Your task to perform on an android device: Empty the shopping cart on walmart. Image 0: 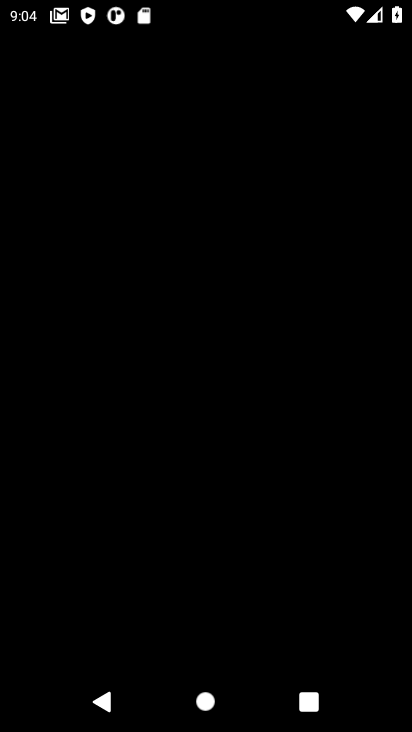
Step 0: press home button
Your task to perform on an android device: Empty the shopping cart on walmart. Image 1: 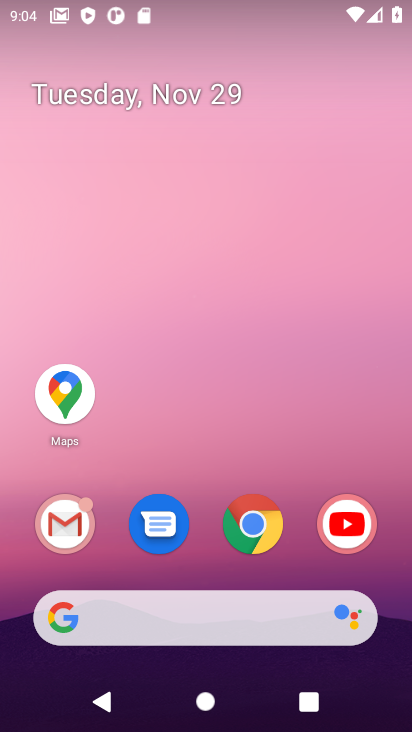
Step 1: click (251, 528)
Your task to perform on an android device: Empty the shopping cart on walmart. Image 2: 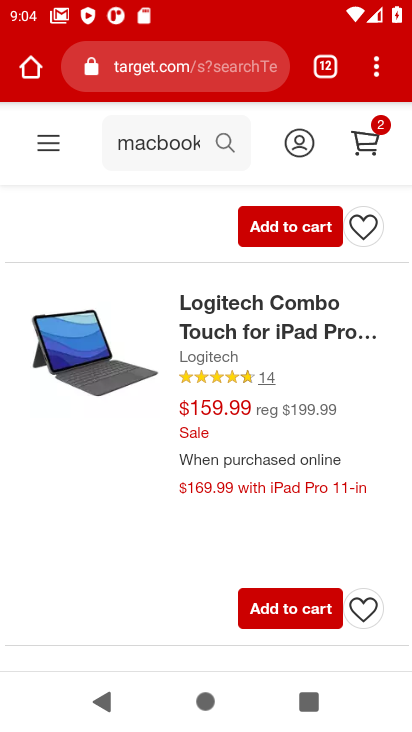
Step 2: click (155, 71)
Your task to perform on an android device: Empty the shopping cart on walmart. Image 3: 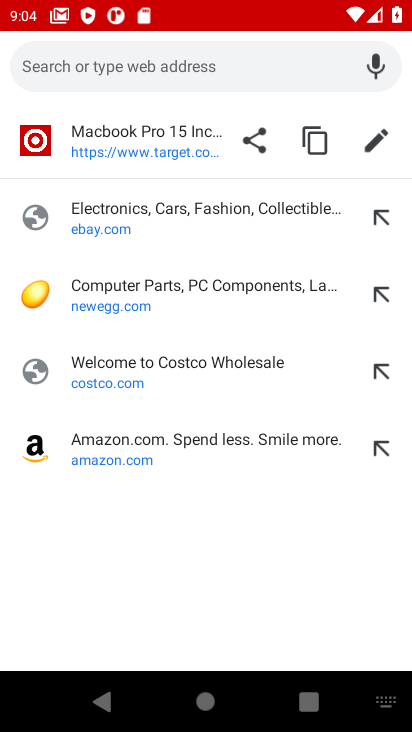
Step 3: type "walmart.com"
Your task to perform on an android device: Empty the shopping cart on walmart. Image 4: 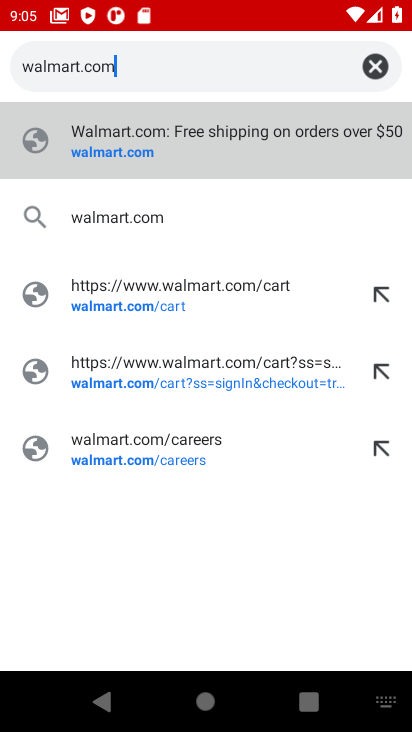
Step 4: click (81, 154)
Your task to perform on an android device: Empty the shopping cart on walmart. Image 5: 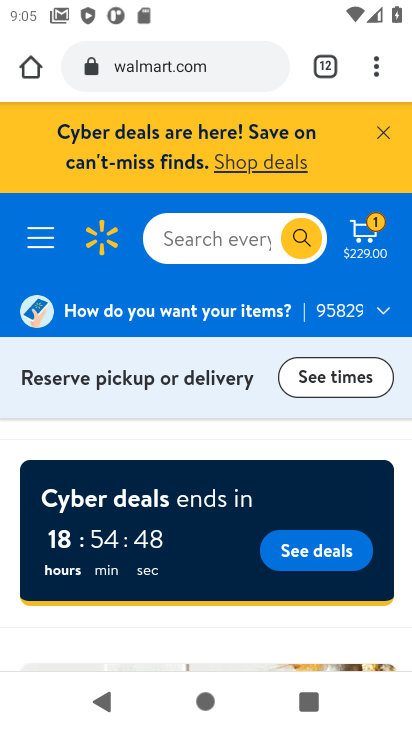
Step 5: click (377, 241)
Your task to perform on an android device: Empty the shopping cart on walmart. Image 6: 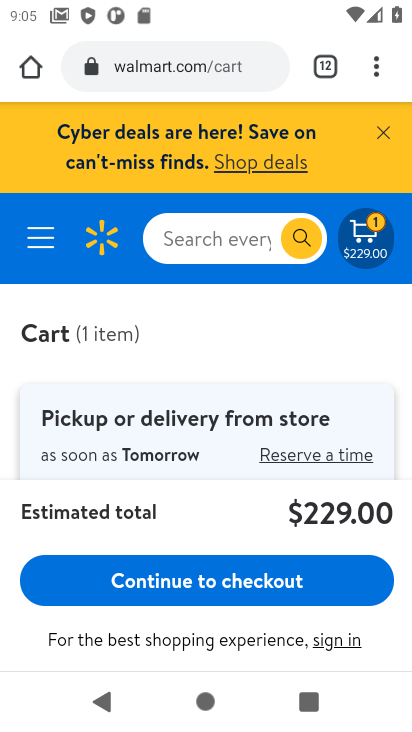
Step 6: drag from (311, 369) to (271, 183)
Your task to perform on an android device: Empty the shopping cart on walmart. Image 7: 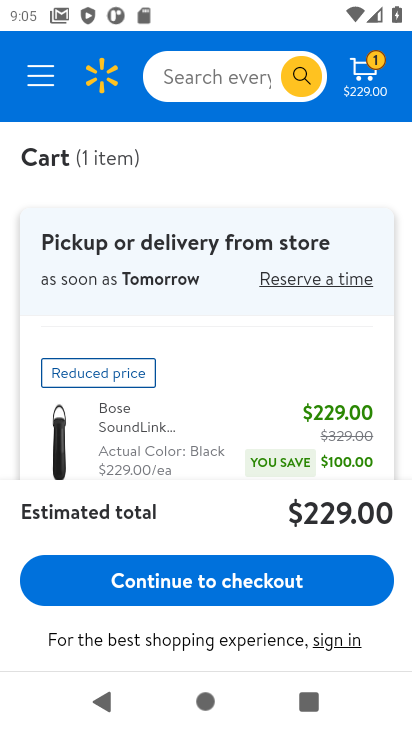
Step 7: drag from (403, 368) to (397, 326)
Your task to perform on an android device: Empty the shopping cart on walmart. Image 8: 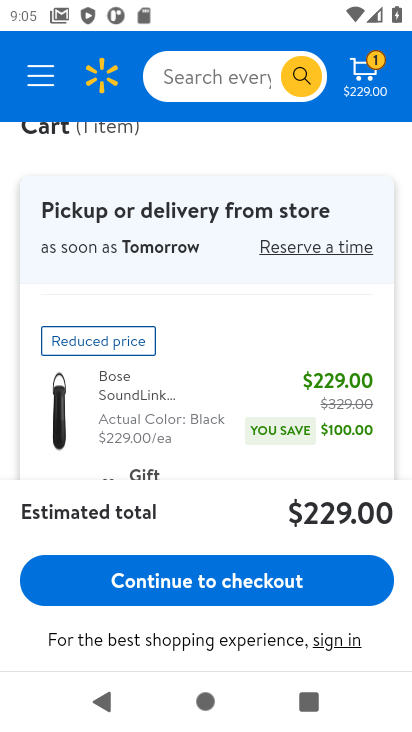
Step 8: drag from (393, 384) to (381, 293)
Your task to perform on an android device: Empty the shopping cart on walmart. Image 9: 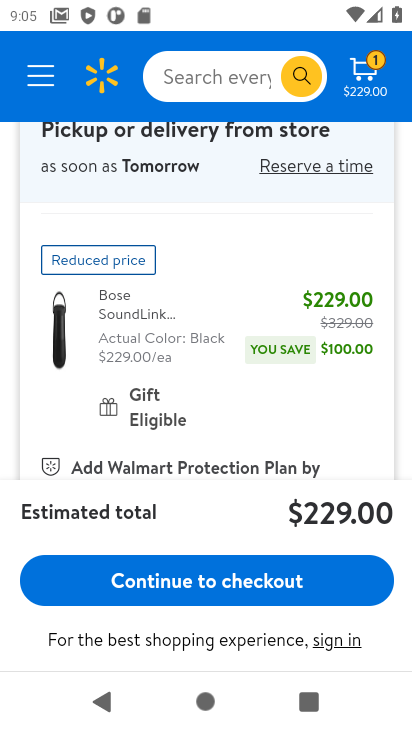
Step 9: drag from (370, 423) to (356, 241)
Your task to perform on an android device: Empty the shopping cart on walmart. Image 10: 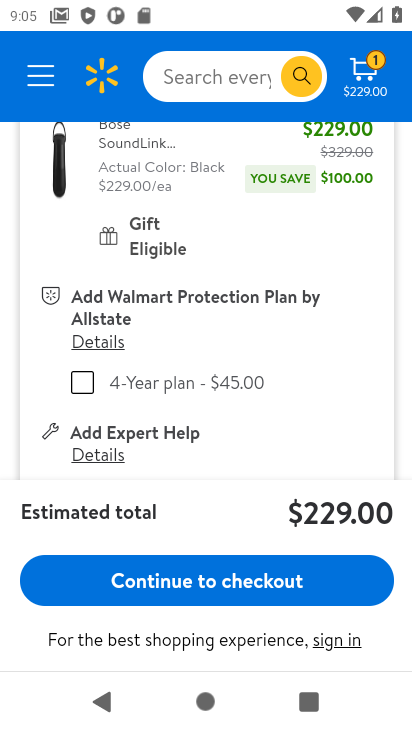
Step 10: drag from (219, 400) to (259, 149)
Your task to perform on an android device: Empty the shopping cart on walmart. Image 11: 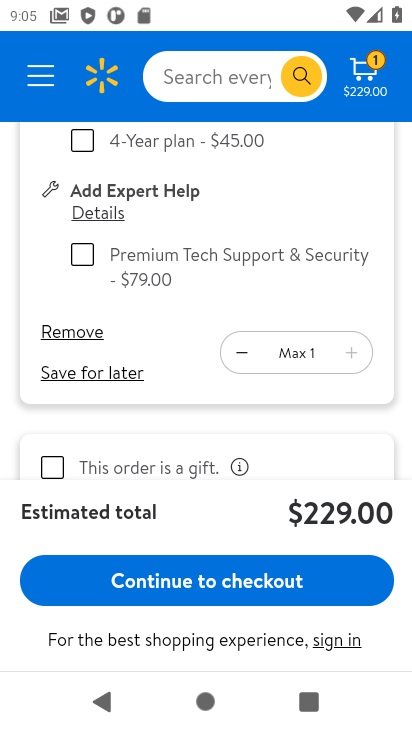
Step 11: click (69, 332)
Your task to perform on an android device: Empty the shopping cart on walmart. Image 12: 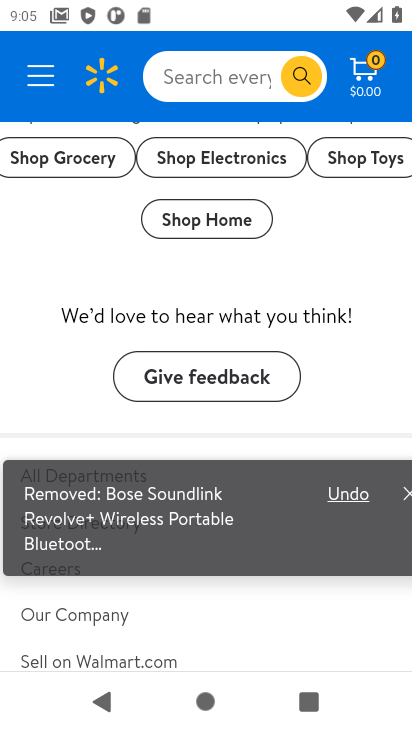
Step 12: task complete